Your task to perform on an android device: What's the weather going to be this weekend? Image 0: 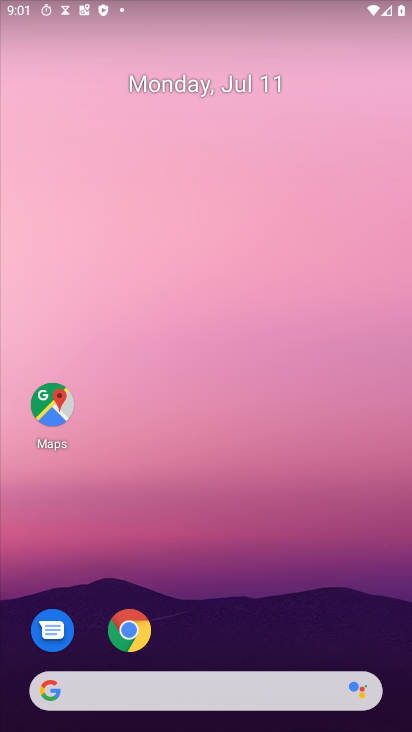
Step 0: press home button
Your task to perform on an android device: What's the weather going to be this weekend? Image 1: 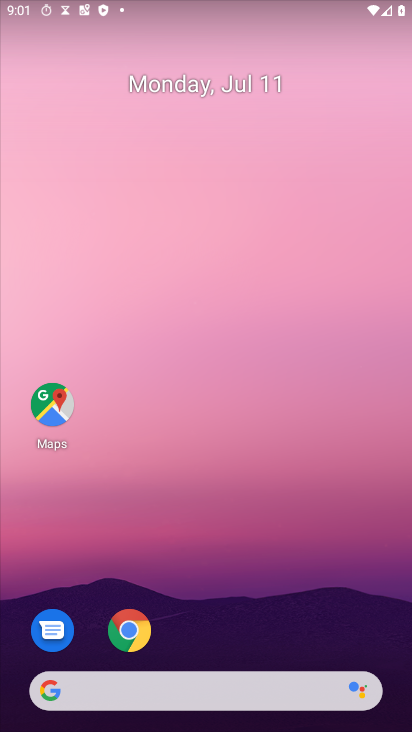
Step 1: drag from (10, 295) to (366, 294)
Your task to perform on an android device: What's the weather going to be this weekend? Image 2: 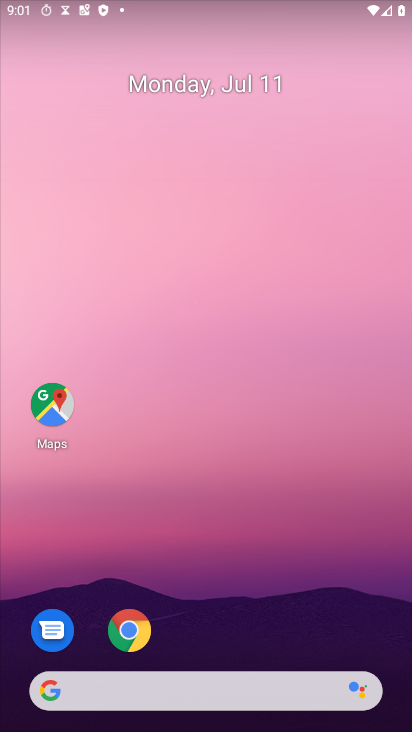
Step 2: drag from (8, 309) to (409, 335)
Your task to perform on an android device: What's the weather going to be this weekend? Image 3: 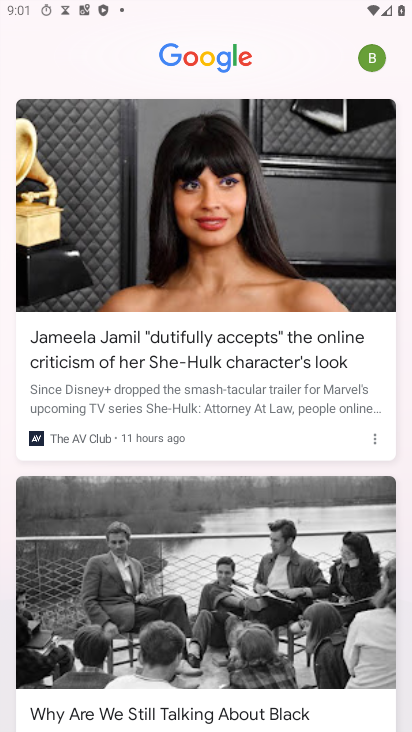
Step 3: press back button
Your task to perform on an android device: What's the weather going to be this weekend? Image 4: 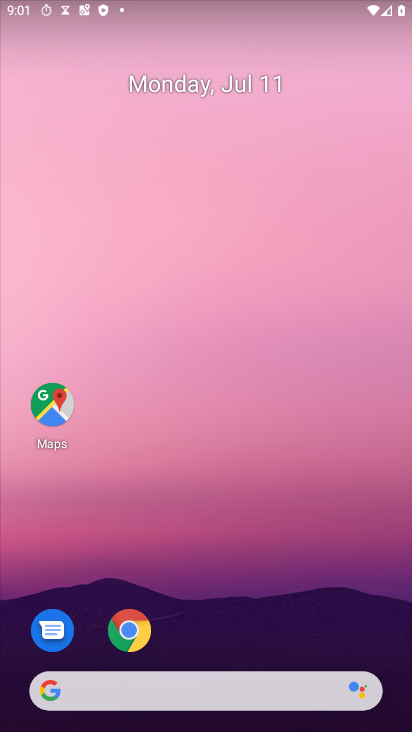
Step 4: click (176, 685)
Your task to perform on an android device: What's the weather going to be this weekend? Image 5: 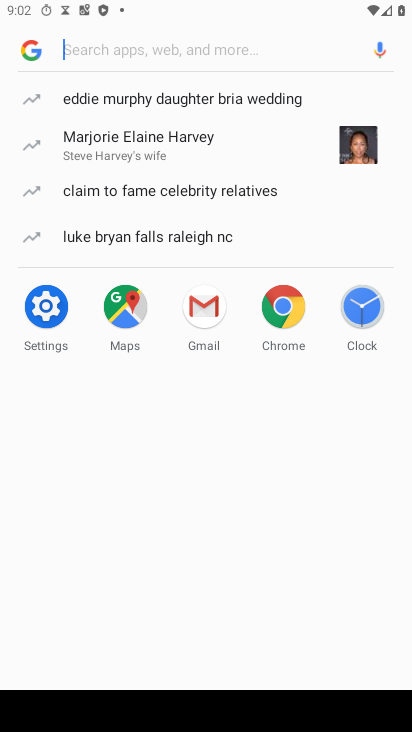
Step 5: type "weather"
Your task to perform on an android device: What's the weather going to be this weekend? Image 6: 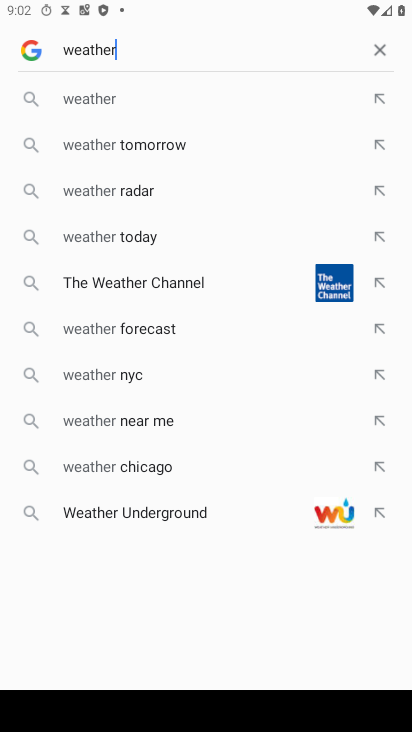
Step 6: click (122, 97)
Your task to perform on an android device: What's the weather going to be this weekend? Image 7: 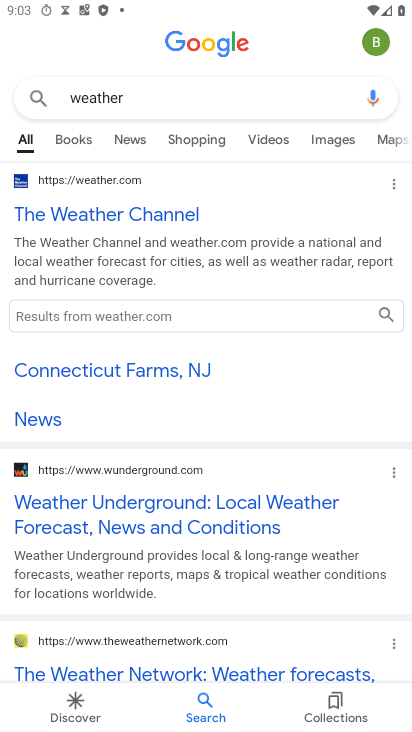
Step 7: click (144, 209)
Your task to perform on an android device: What's the weather going to be this weekend? Image 8: 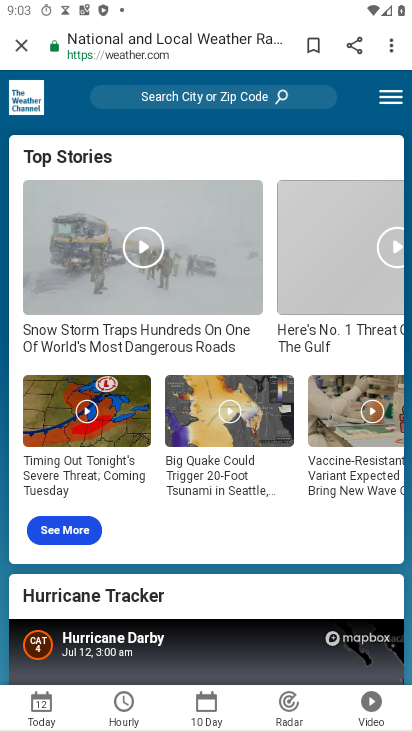
Step 8: click (19, 47)
Your task to perform on an android device: What's the weather going to be this weekend? Image 9: 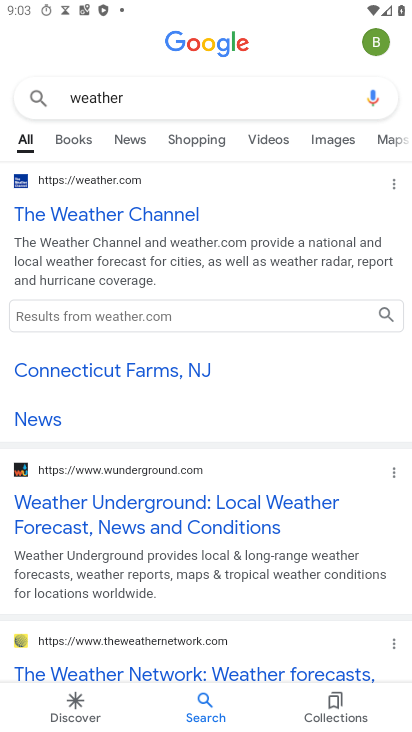
Step 9: task complete